Your task to perform on an android device: check google app version Image 0: 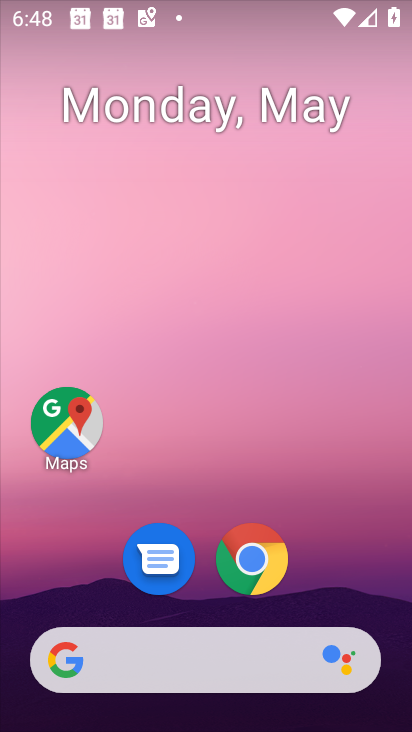
Step 0: drag from (404, 667) to (283, 115)
Your task to perform on an android device: check google app version Image 1: 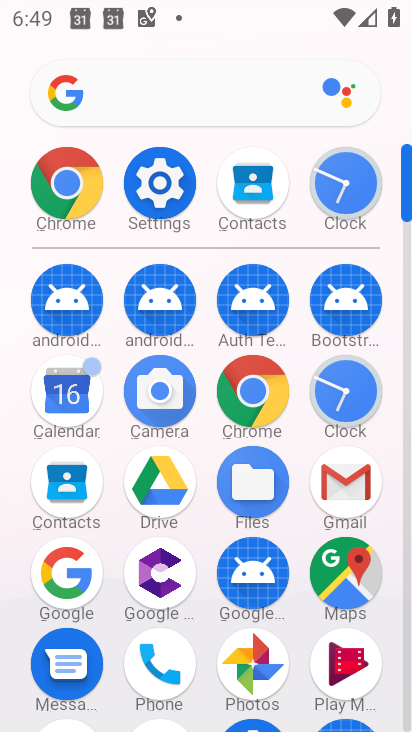
Step 1: click (55, 585)
Your task to perform on an android device: check google app version Image 2: 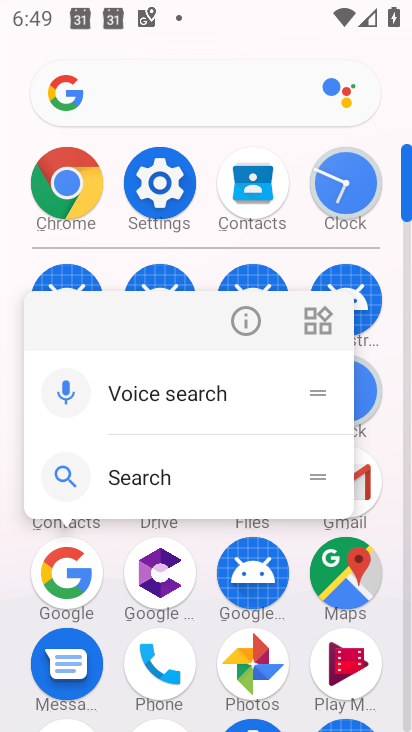
Step 2: click (243, 330)
Your task to perform on an android device: check google app version Image 3: 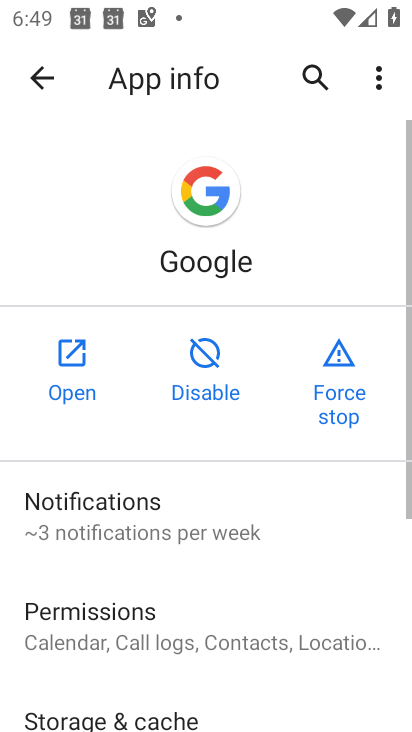
Step 3: drag from (115, 656) to (203, 102)
Your task to perform on an android device: check google app version Image 4: 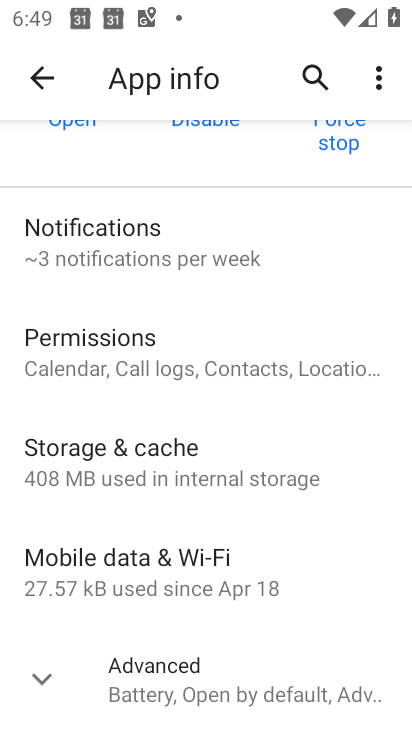
Step 4: click (65, 680)
Your task to perform on an android device: check google app version Image 5: 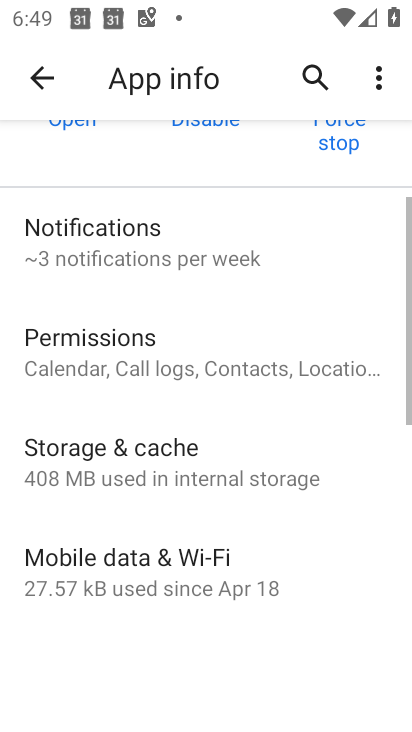
Step 5: task complete